Your task to perform on an android device: turn on notifications settings in the gmail app Image 0: 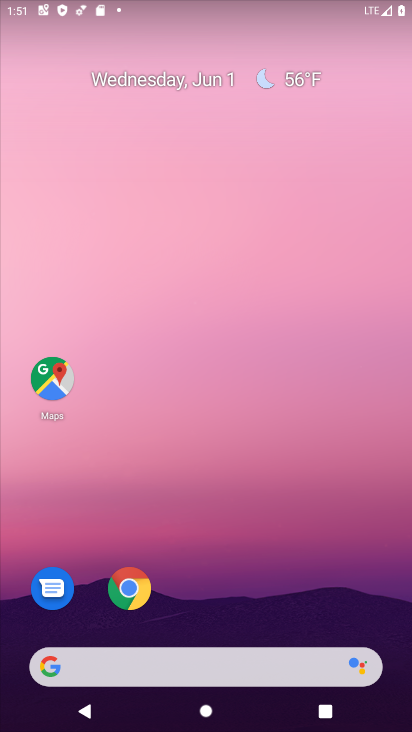
Step 0: drag from (235, 275) to (164, 19)
Your task to perform on an android device: turn on notifications settings in the gmail app Image 1: 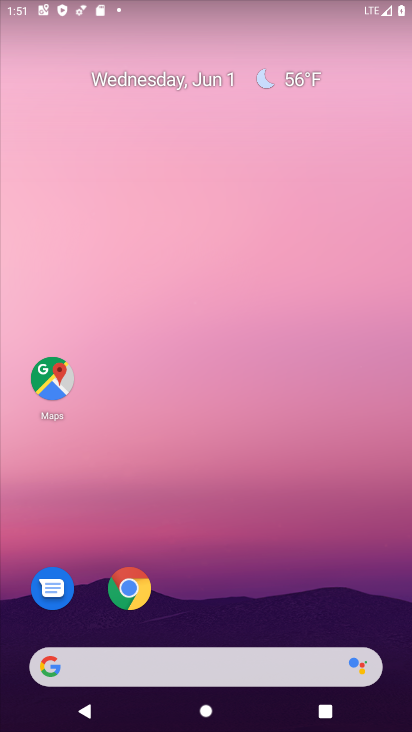
Step 1: drag from (234, 416) to (141, 9)
Your task to perform on an android device: turn on notifications settings in the gmail app Image 2: 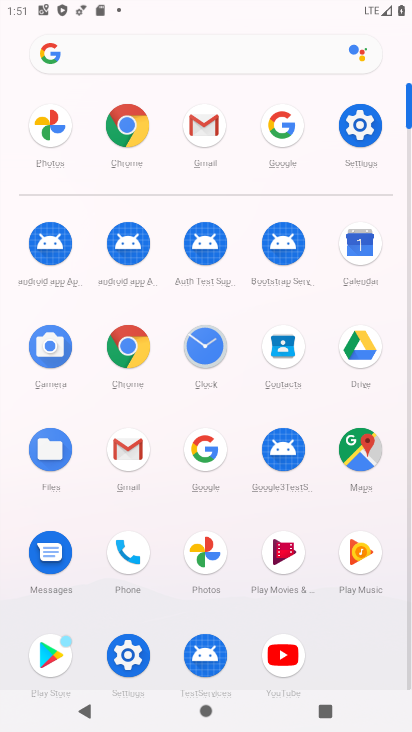
Step 2: click (206, 119)
Your task to perform on an android device: turn on notifications settings in the gmail app Image 3: 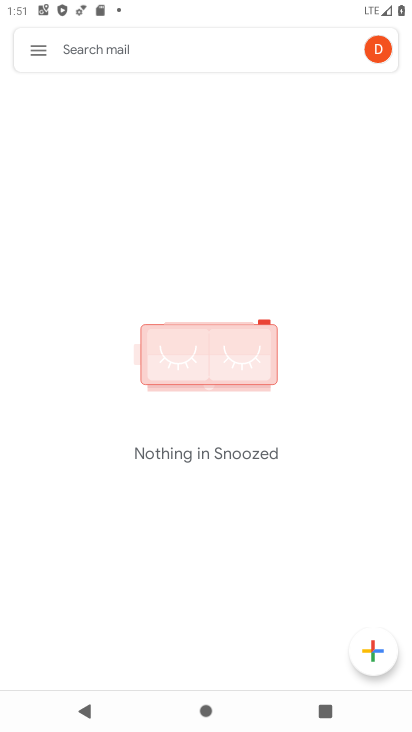
Step 3: click (32, 44)
Your task to perform on an android device: turn on notifications settings in the gmail app Image 4: 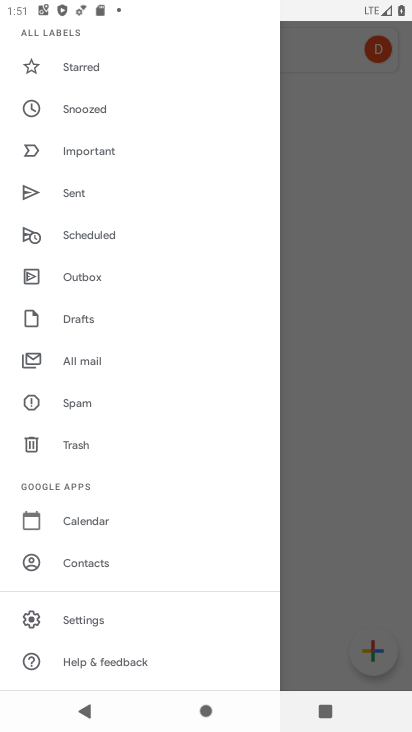
Step 4: click (92, 627)
Your task to perform on an android device: turn on notifications settings in the gmail app Image 5: 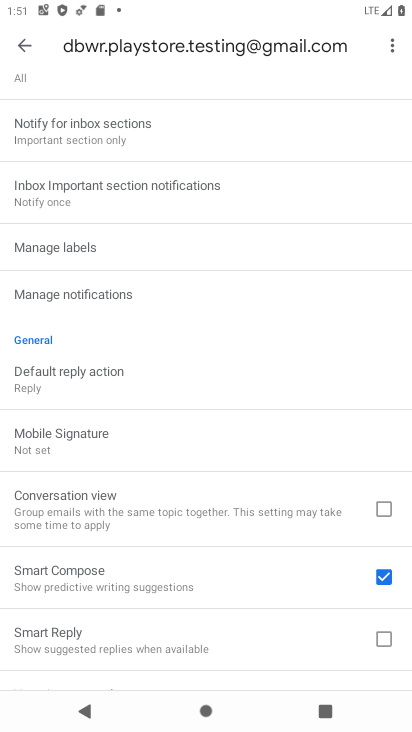
Step 5: drag from (169, 224) to (110, 552)
Your task to perform on an android device: turn on notifications settings in the gmail app Image 6: 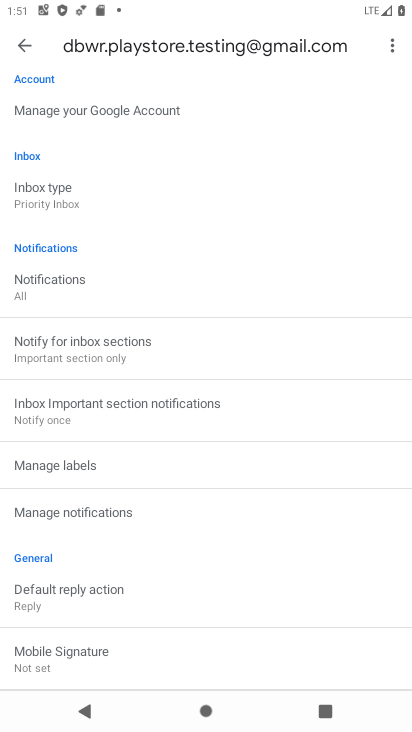
Step 6: click (97, 293)
Your task to perform on an android device: turn on notifications settings in the gmail app Image 7: 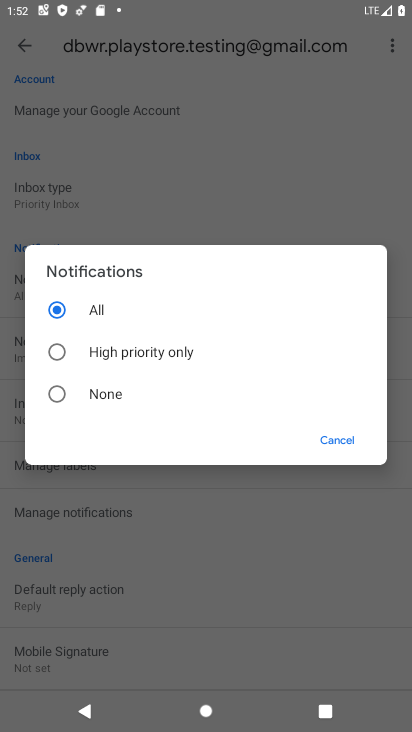
Step 7: task complete